Your task to perform on an android device: Find coffee shops on Maps Image 0: 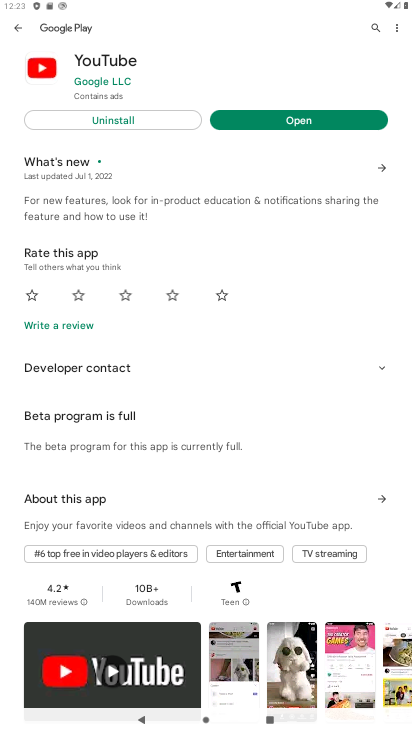
Step 0: press home button
Your task to perform on an android device: Find coffee shops on Maps Image 1: 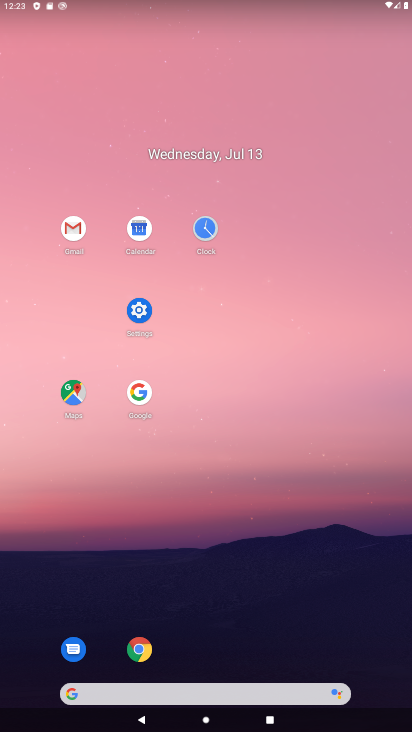
Step 1: click (79, 391)
Your task to perform on an android device: Find coffee shops on Maps Image 2: 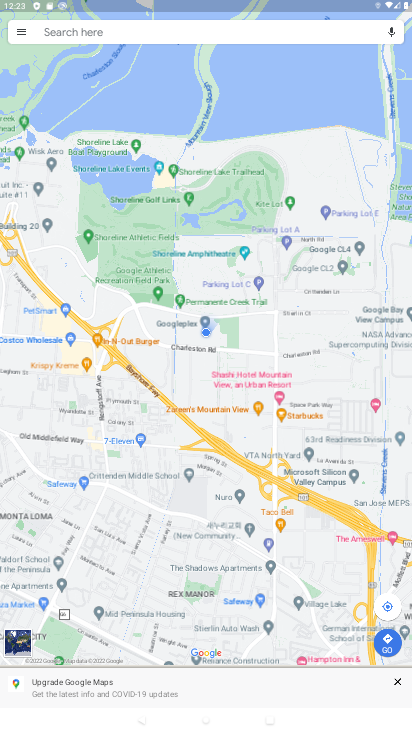
Step 2: click (155, 37)
Your task to perform on an android device: Find coffee shops on Maps Image 3: 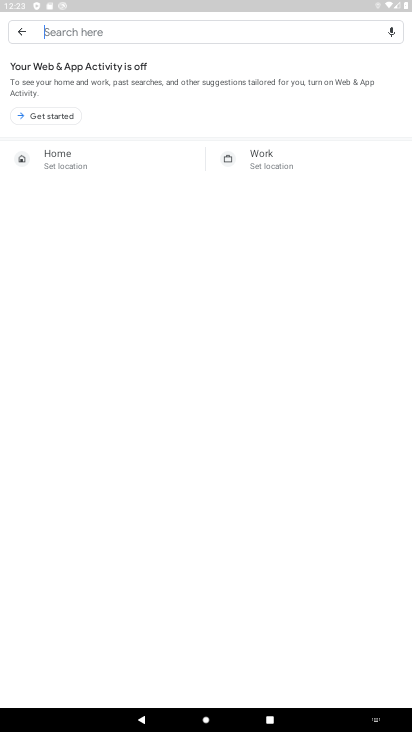
Step 3: type "coffee"
Your task to perform on an android device: Find coffee shops on Maps Image 4: 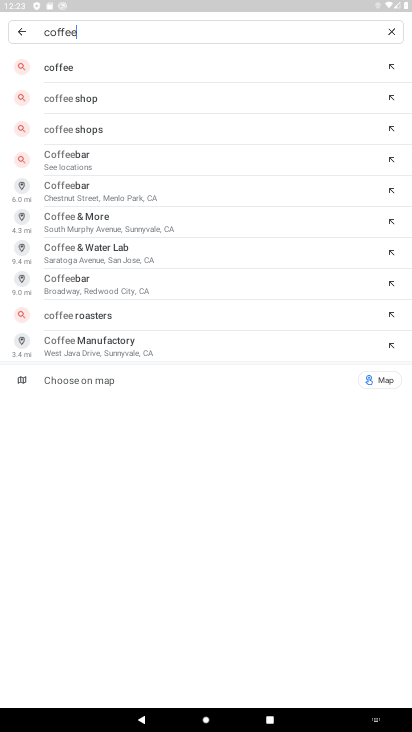
Step 4: click (99, 67)
Your task to perform on an android device: Find coffee shops on Maps Image 5: 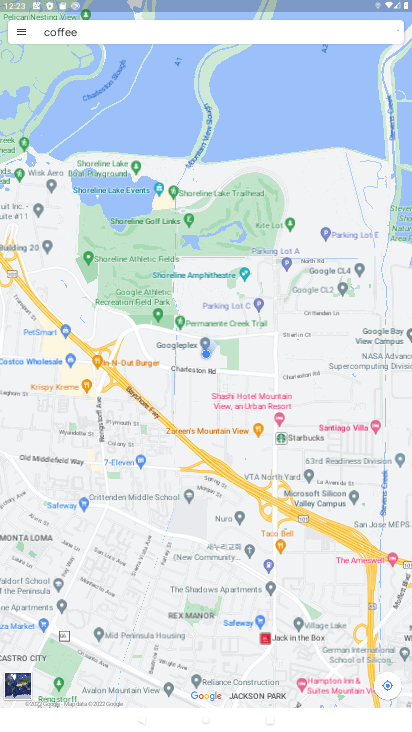
Step 5: task complete